Your task to perform on an android device: change alarm snooze length Image 0: 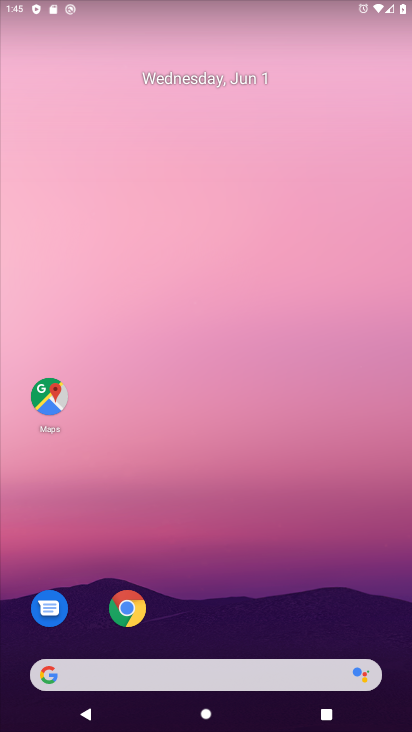
Step 0: drag from (184, 625) to (297, 90)
Your task to perform on an android device: change alarm snooze length Image 1: 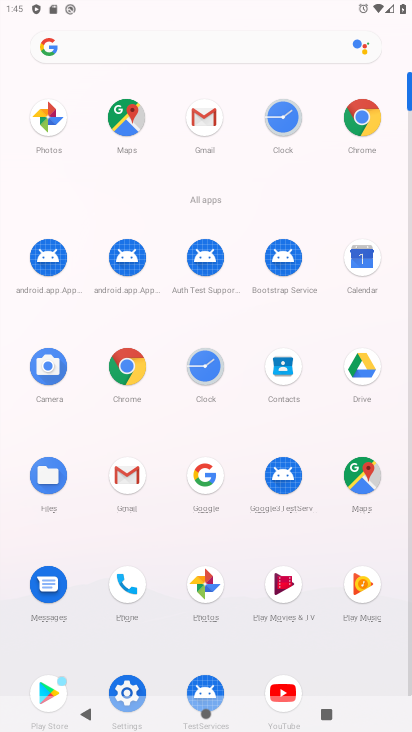
Step 1: click (214, 377)
Your task to perform on an android device: change alarm snooze length Image 2: 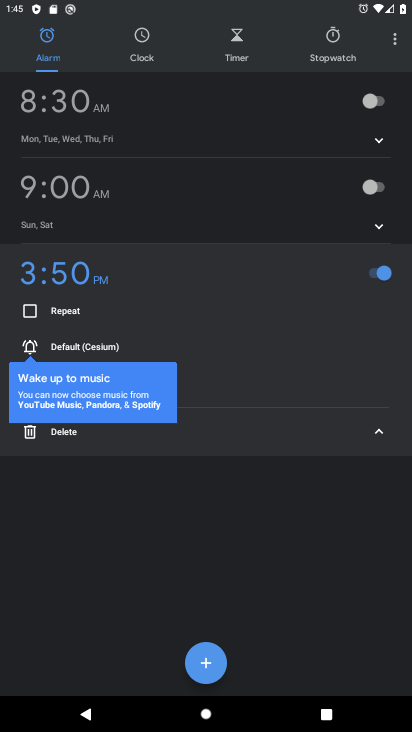
Step 2: click (396, 46)
Your task to perform on an android device: change alarm snooze length Image 3: 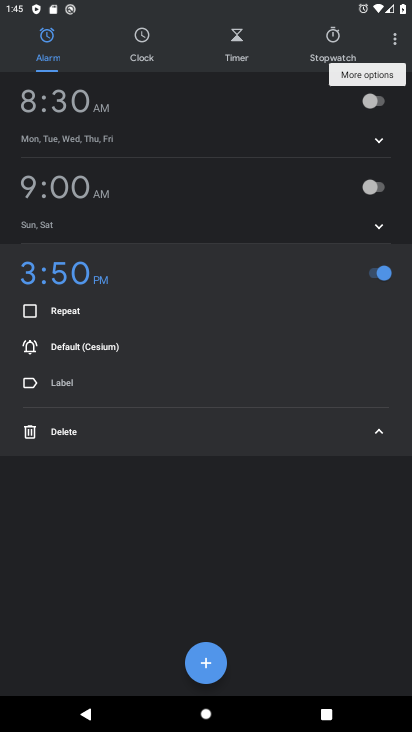
Step 3: click (389, 38)
Your task to perform on an android device: change alarm snooze length Image 4: 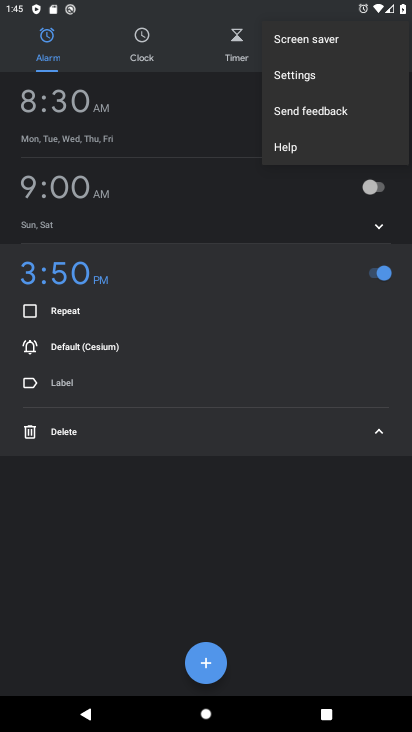
Step 4: click (336, 72)
Your task to perform on an android device: change alarm snooze length Image 5: 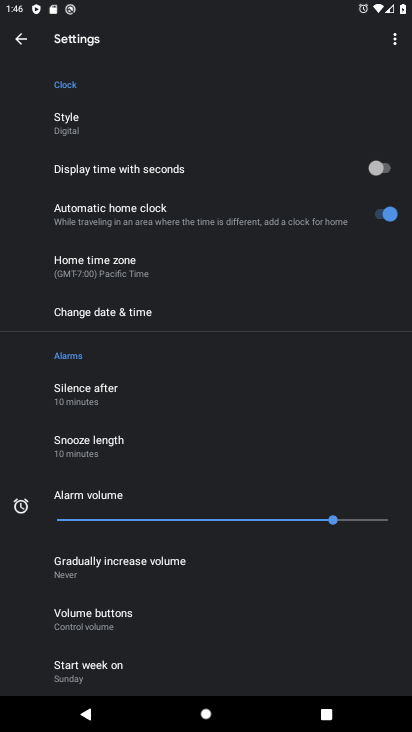
Step 5: drag from (159, 565) to (244, 218)
Your task to perform on an android device: change alarm snooze length Image 6: 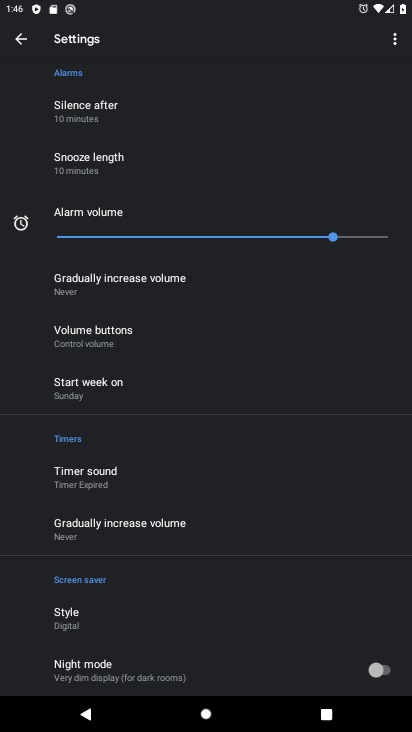
Step 6: click (178, 164)
Your task to perform on an android device: change alarm snooze length Image 7: 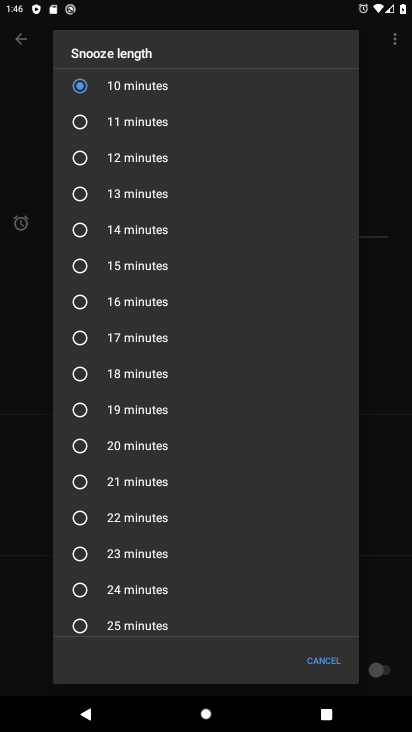
Step 7: click (146, 453)
Your task to perform on an android device: change alarm snooze length Image 8: 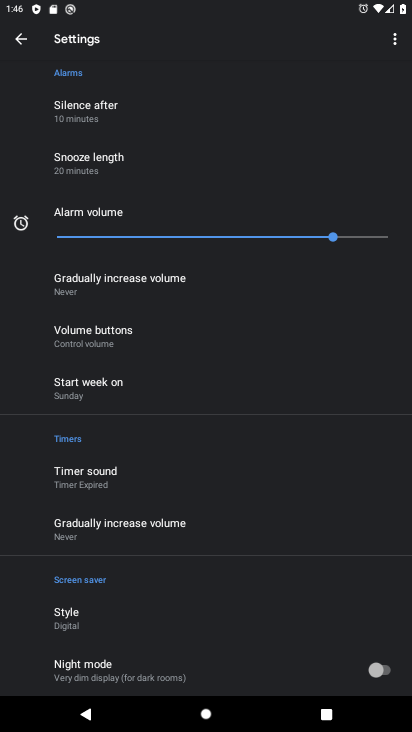
Step 8: task complete